Your task to perform on an android device: turn off airplane mode Image 0: 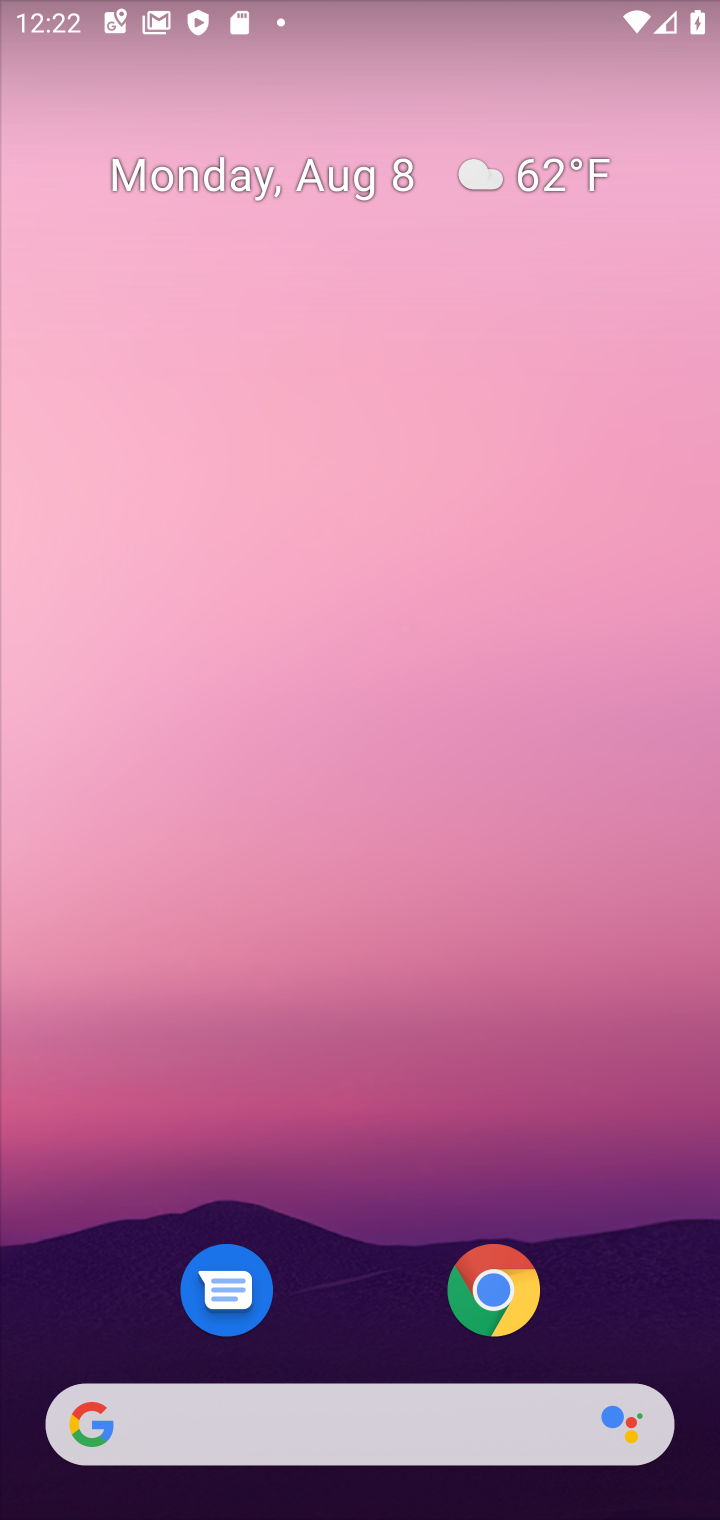
Step 0: drag from (342, 1255) to (318, 80)
Your task to perform on an android device: turn off airplane mode Image 1: 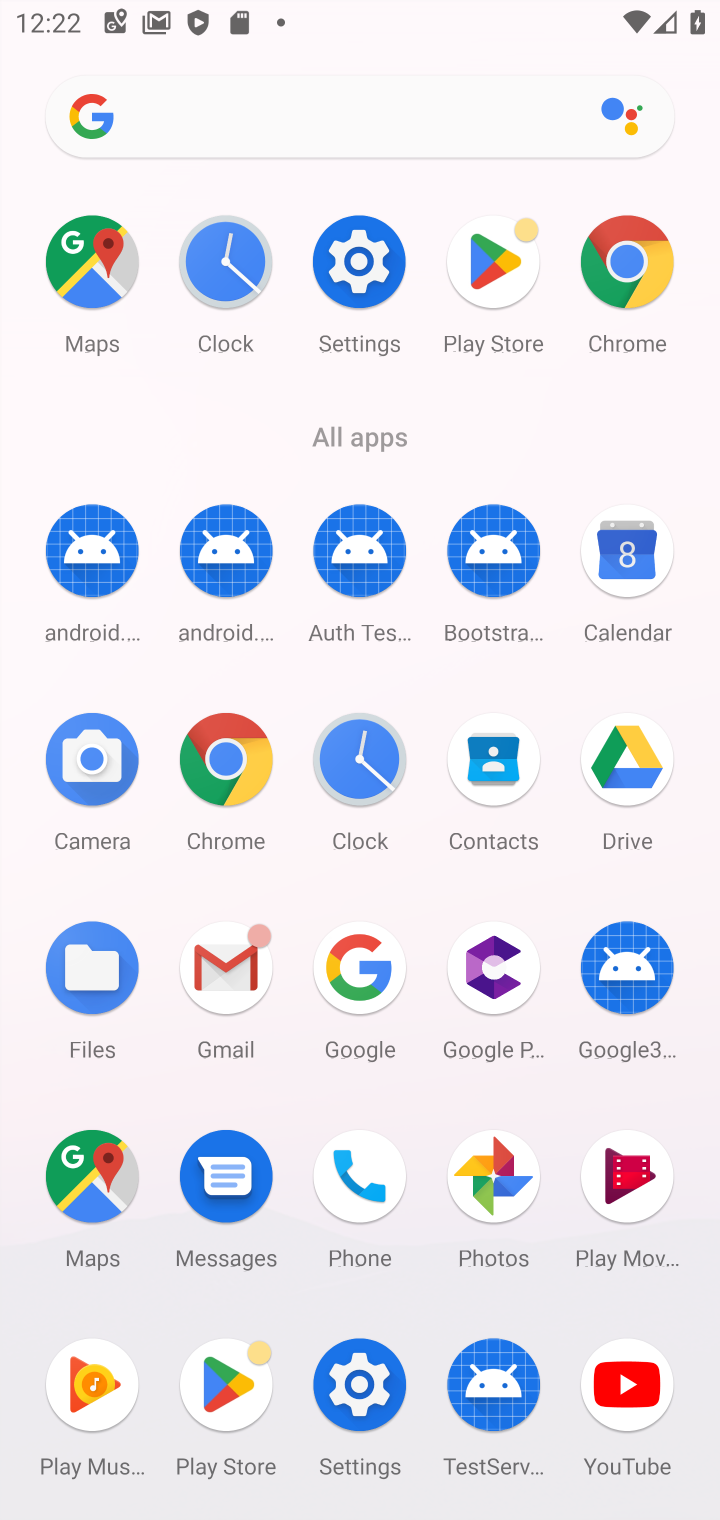
Step 1: click (366, 1392)
Your task to perform on an android device: turn off airplane mode Image 2: 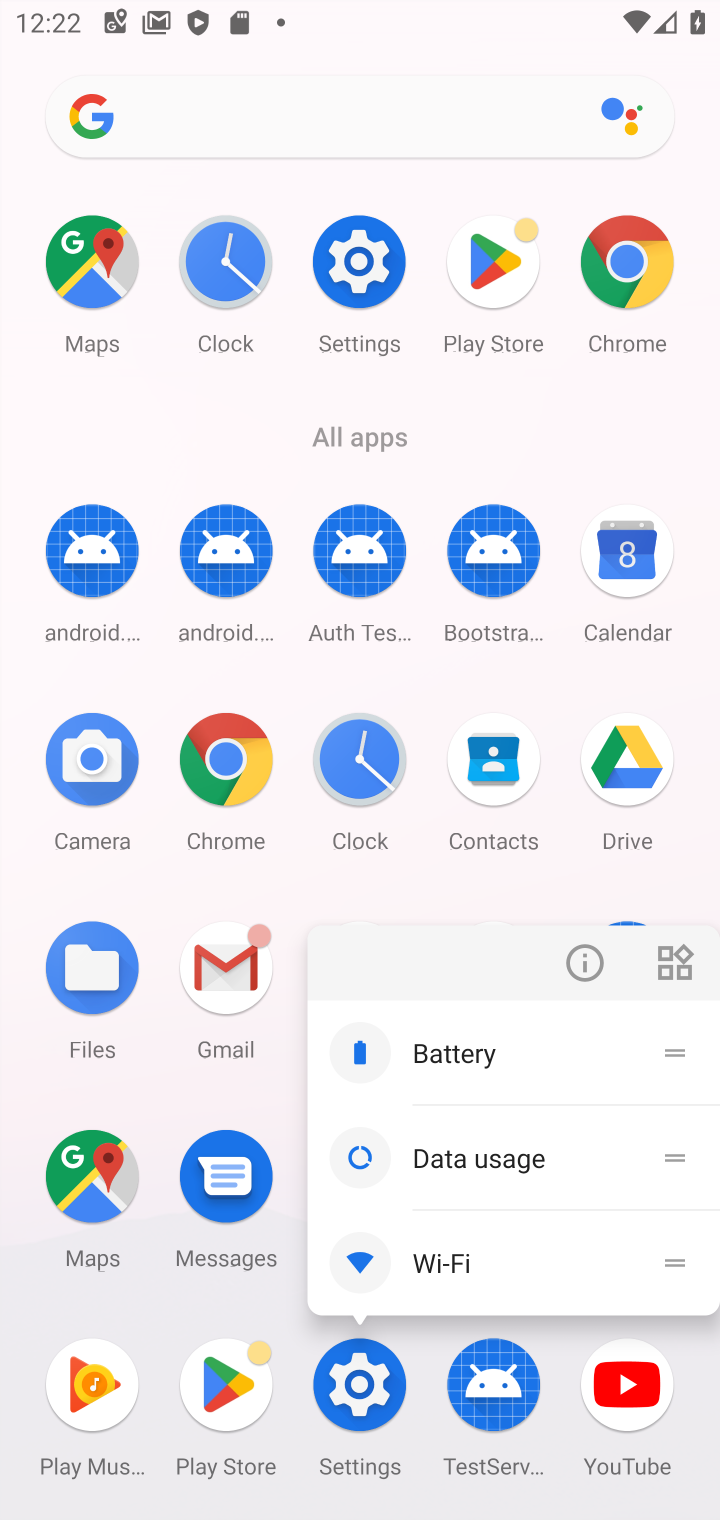
Step 2: click (366, 1392)
Your task to perform on an android device: turn off airplane mode Image 3: 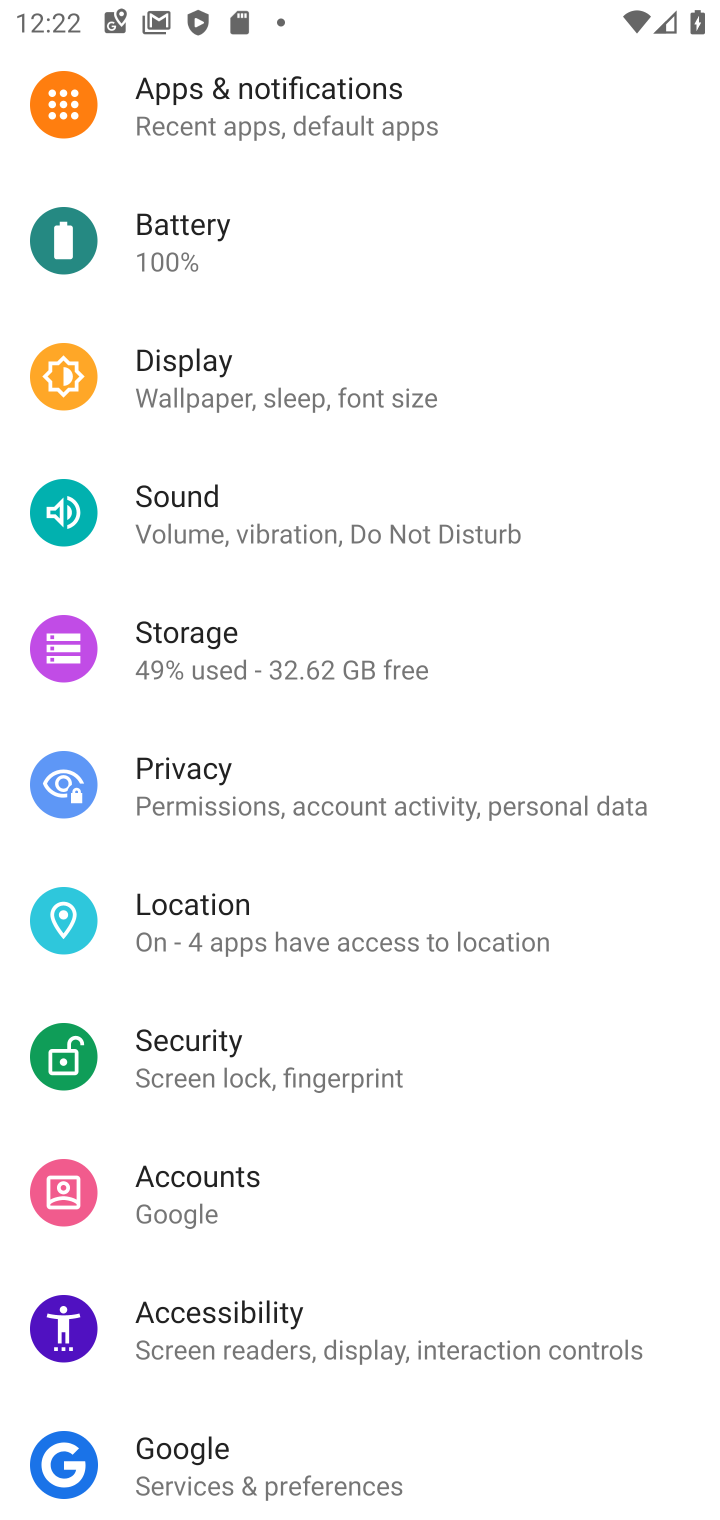
Step 3: drag from (353, 245) to (421, 744)
Your task to perform on an android device: turn off airplane mode Image 4: 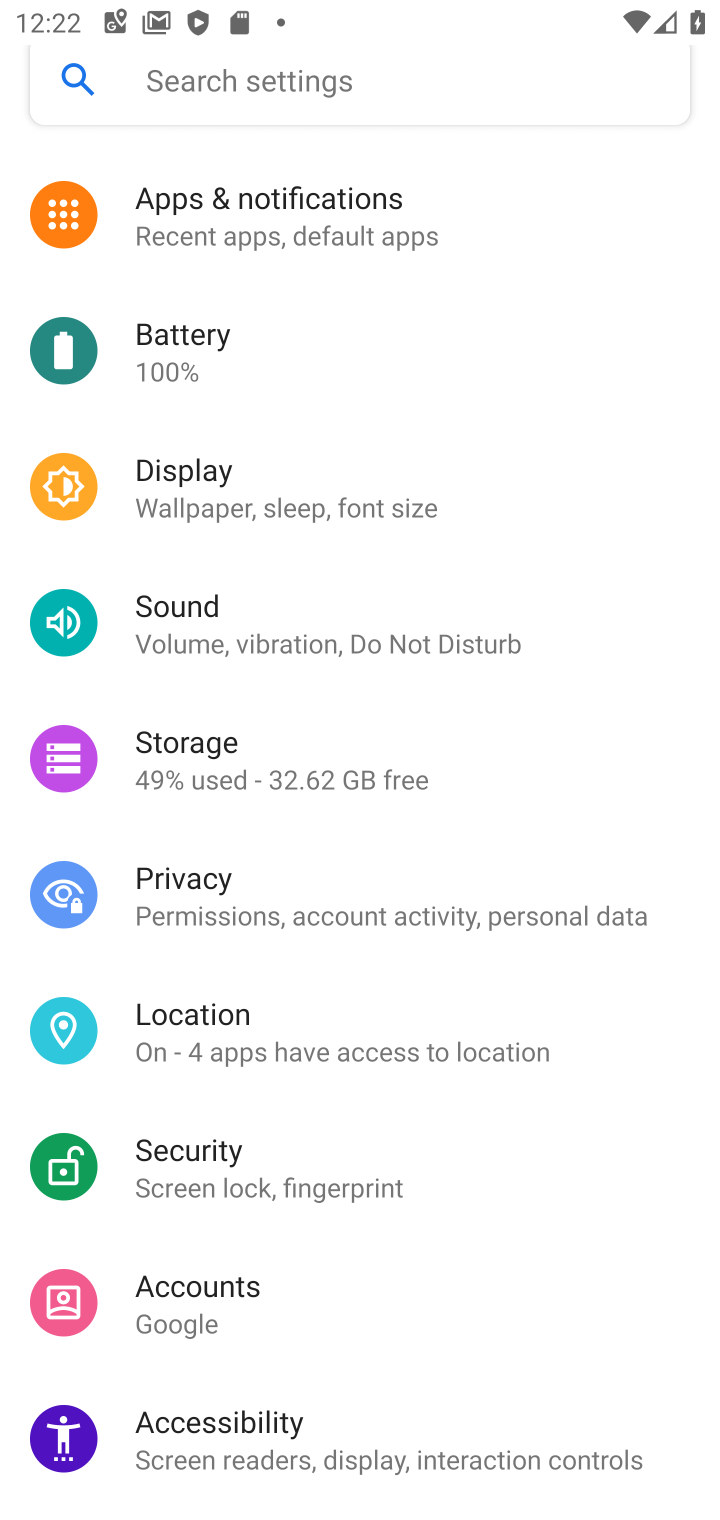
Step 4: drag from (414, 189) to (467, 741)
Your task to perform on an android device: turn off airplane mode Image 5: 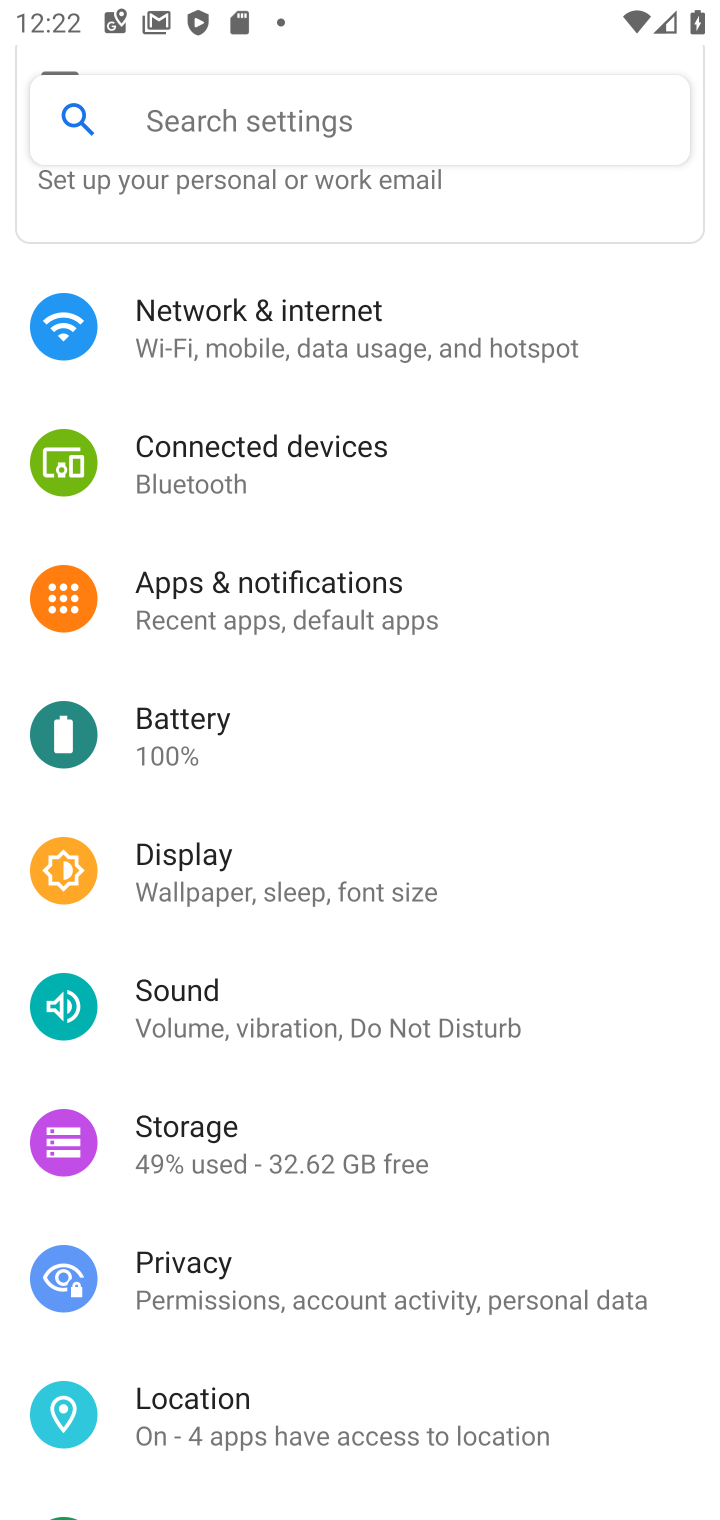
Step 5: click (355, 305)
Your task to perform on an android device: turn off airplane mode Image 6: 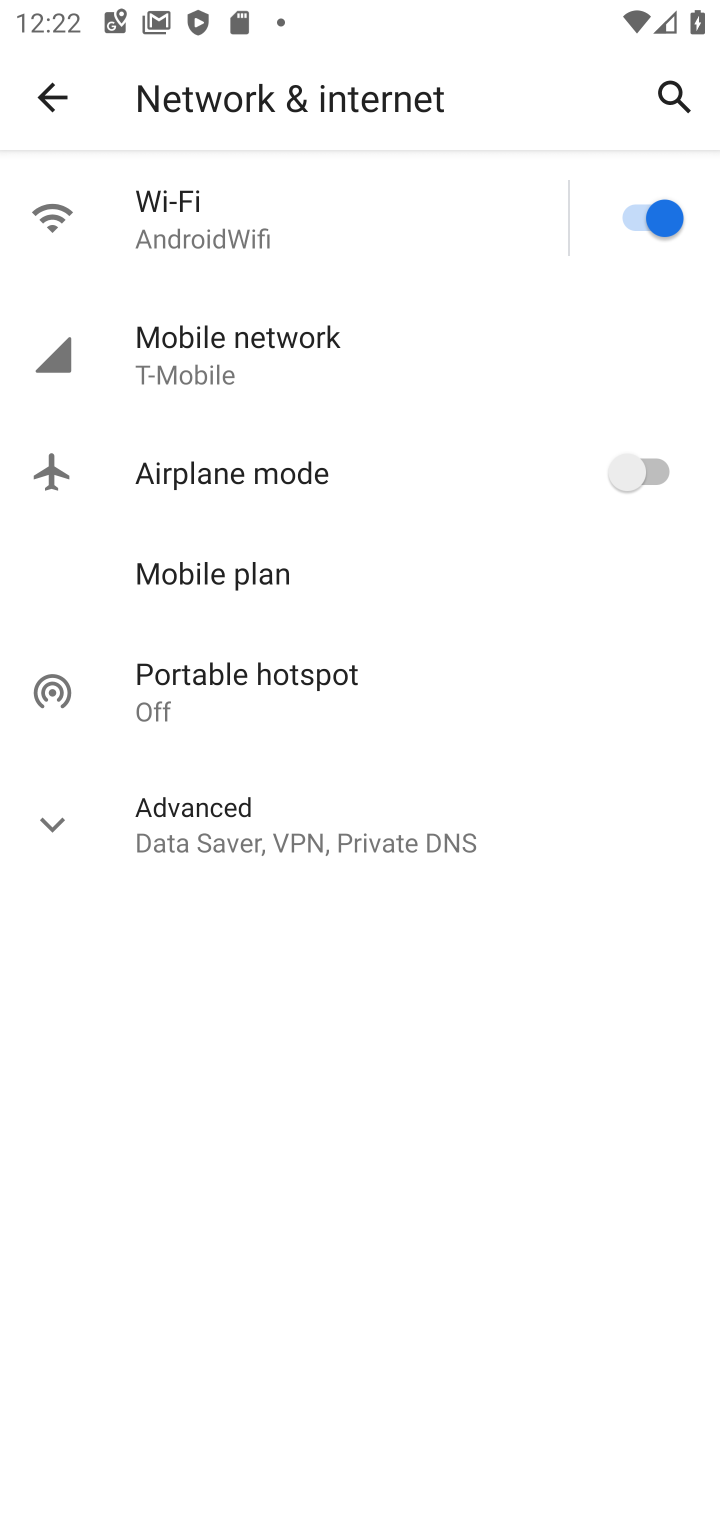
Step 6: task complete